Your task to perform on an android device: change keyboard looks Image 0: 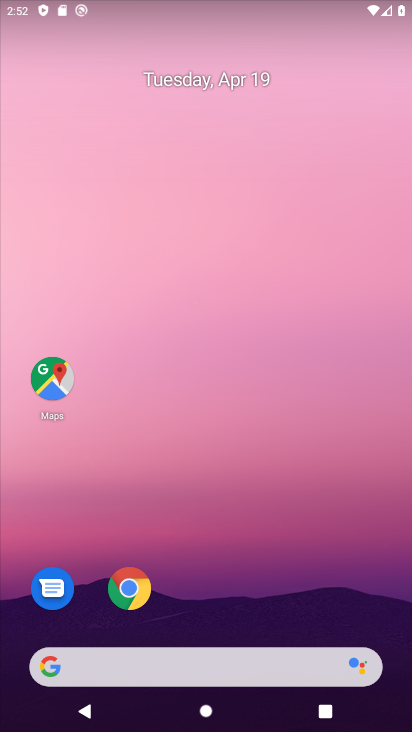
Step 0: click (324, 201)
Your task to perform on an android device: change keyboard looks Image 1: 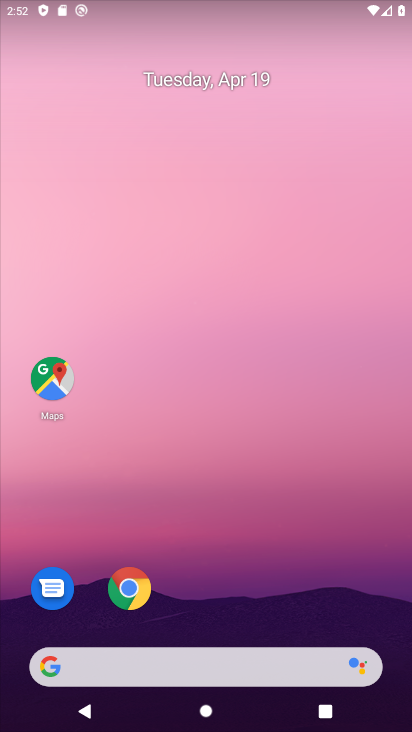
Step 1: drag from (201, 601) to (258, 87)
Your task to perform on an android device: change keyboard looks Image 2: 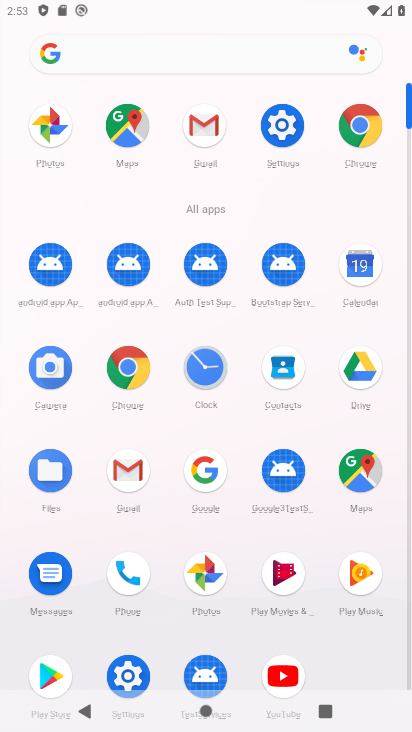
Step 2: click (287, 133)
Your task to perform on an android device: change keyboard looks Image 3: 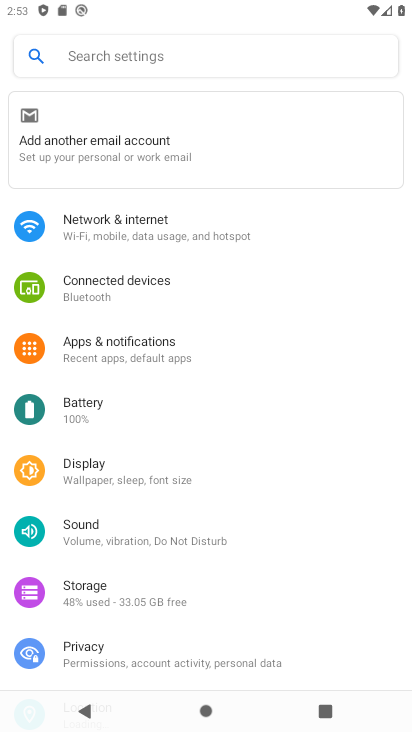
Step 3: drag from (213, 509) to (267, 179)
Your task to perform on an android device: change keyboard looks Image 4: 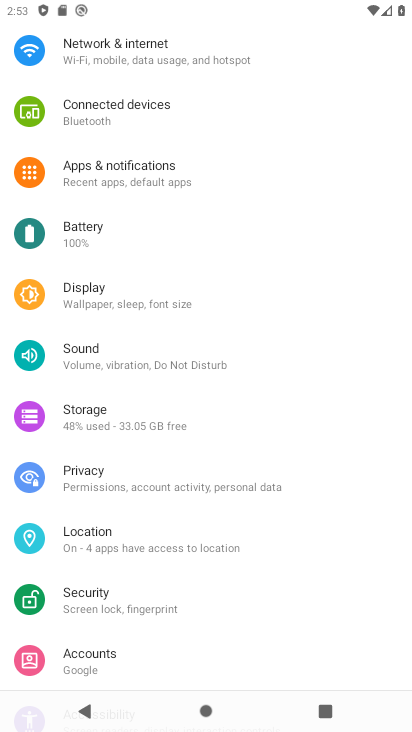
Step 4: drag from (188, 566) to (271, 188)
Your task to perform on an android device: change keyboard looks Image 5: 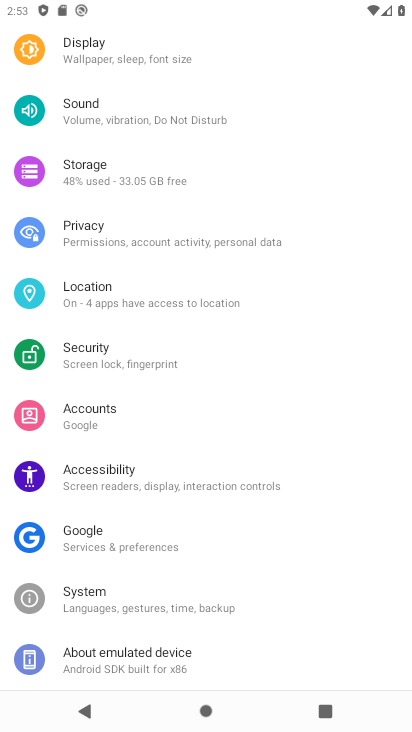
Step 5: click (131, 601)
Your task to perform on an android device: change keyboard looks Image 6: 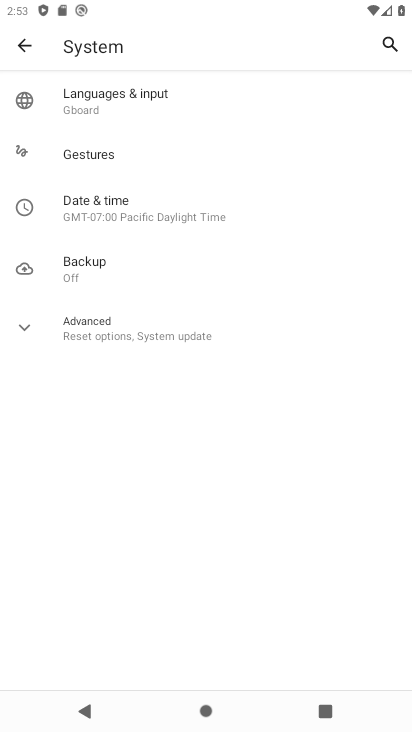
Step 6: click (131, 107)
Your task to perform on an android device: change keyboard looks Image 7: 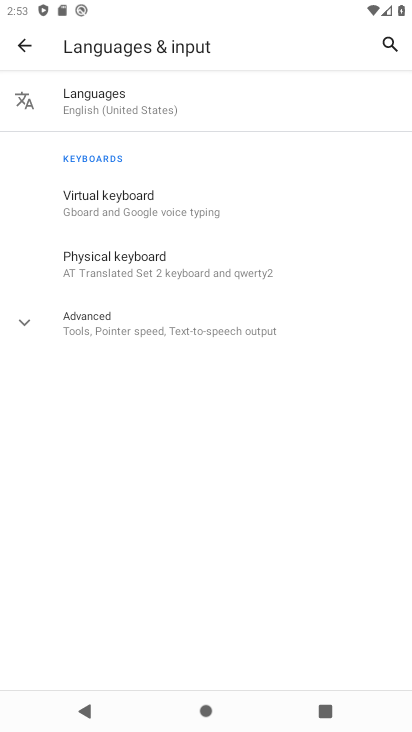
Step 7: click (132, 197)
Your task to perform on an android device: change keyboard looks Image 8: 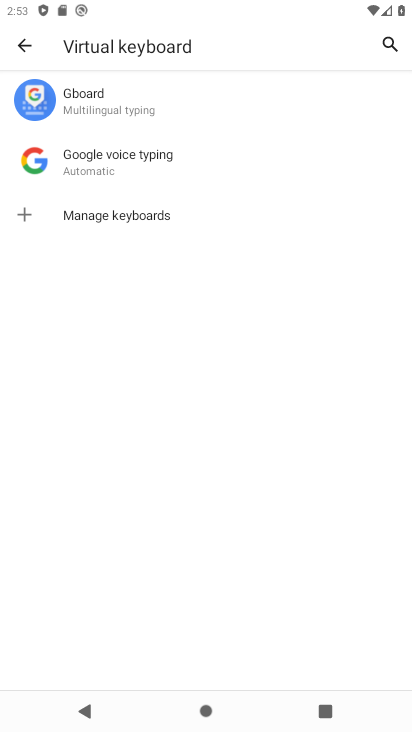
Step 8: click (124, 104)
Your task to perform on an android device: change keyboard looks Image 9: 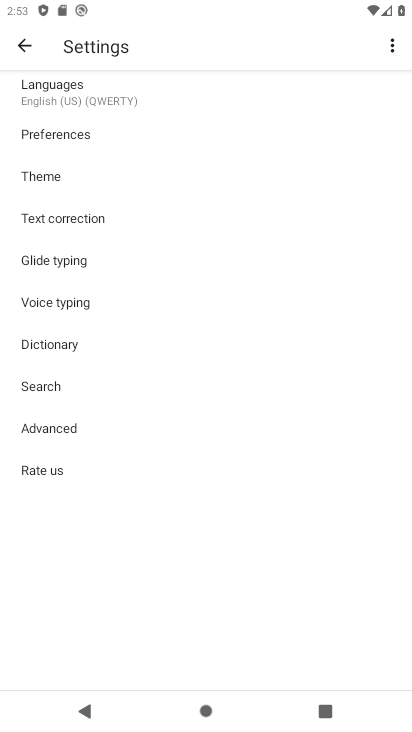
Step 9: click (28, 183)
Your task to perform on an android device: change keyboard looks Image 10: 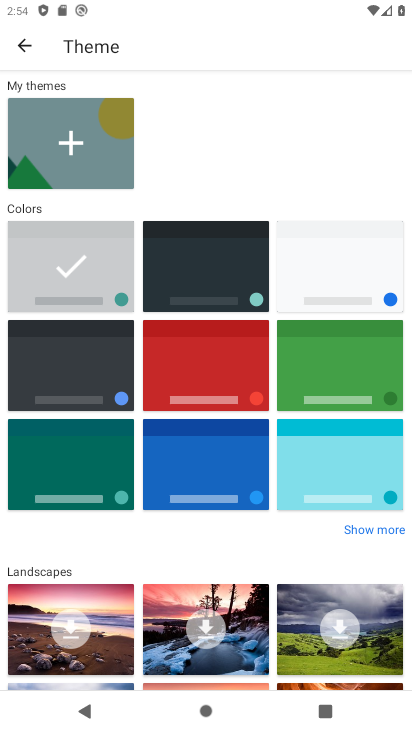
Step 10: click (221, 258)
Your task to perform on an android device: change keyboard looks Image 11: 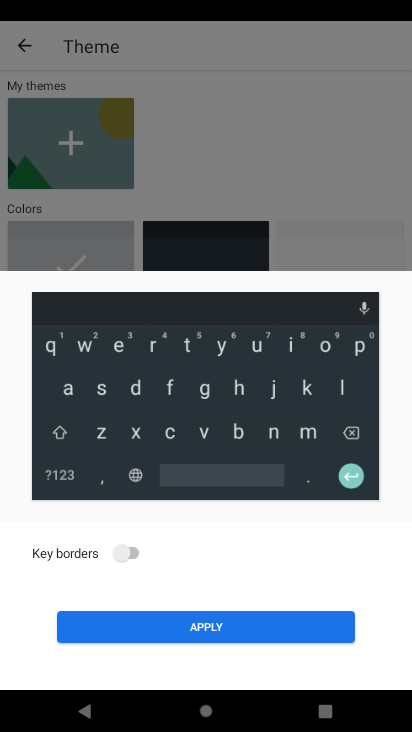
Step 11: click (230, 630)
Your task to perform on an android device: change keyboard looks Image 12: 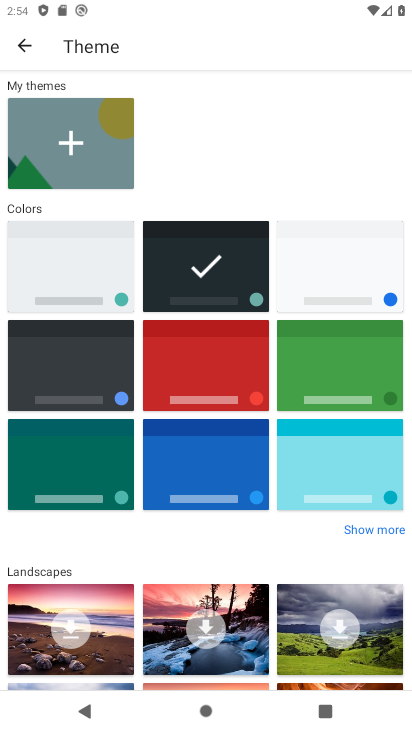
Step 12: task complete